Your task to perform on an android device: Open Chrome and go to settings Image 0: 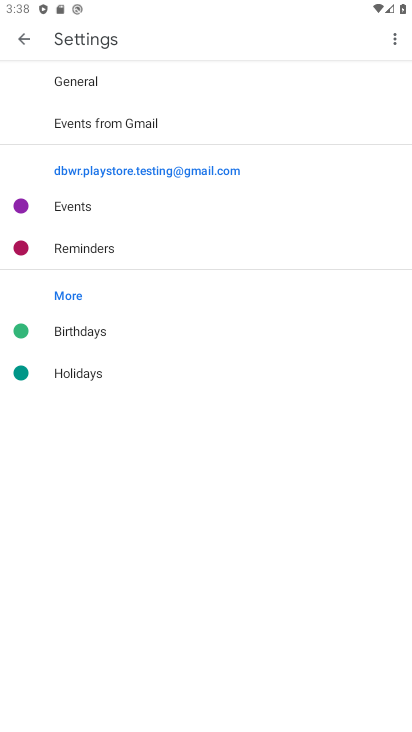
Step 0: press back button
Your task to perform on an android device: Open Chrome and go to settings Image 1: 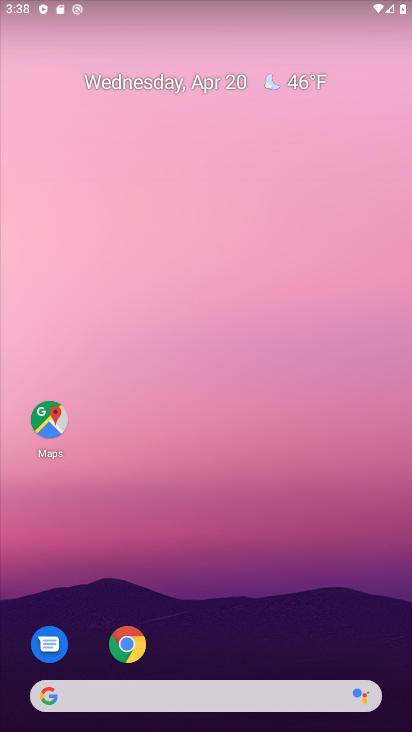
Step 1: click (133, 648)
Your task to perform on an android device: Open Chrome and go to settings Image 2: 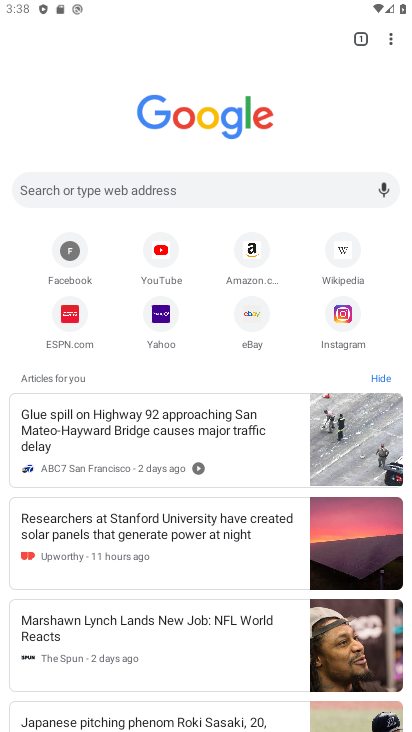
Step 2: task complete